Your task to perform on an android device: Turn on the flashlight Image 0: 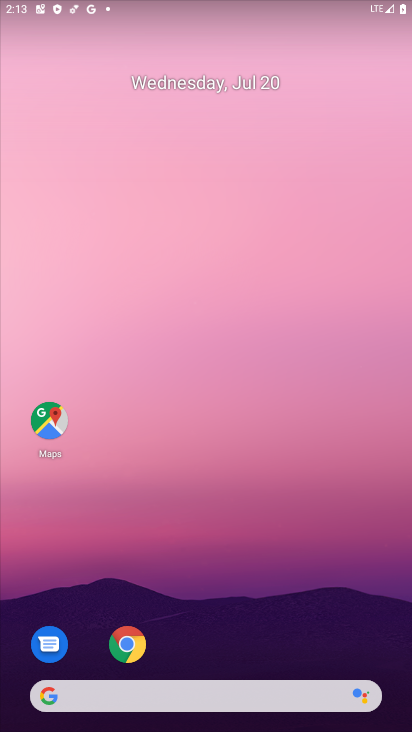
Step 0: drag from (216, 699) to (226, 194)
Your task to perform on an android device: Turn on the flashlight Image 1: 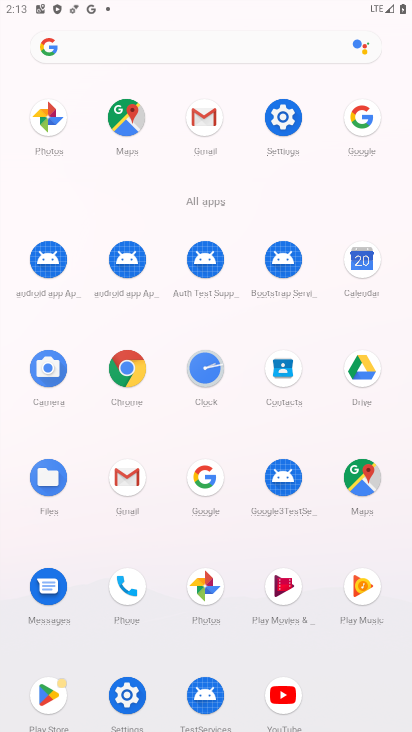
Step 1: click (280, 117)
Your task to perform on an android device: Turn on the flashlight Image 2: 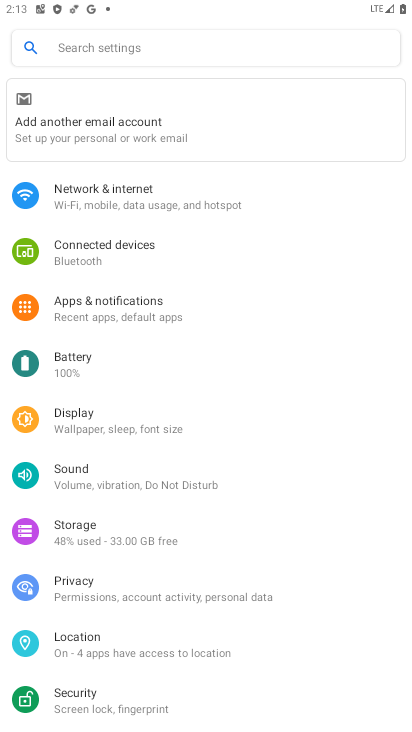
Step 2: click (98, 423)
Your task to perform on an android device: Turn on the flashlight Image 3: 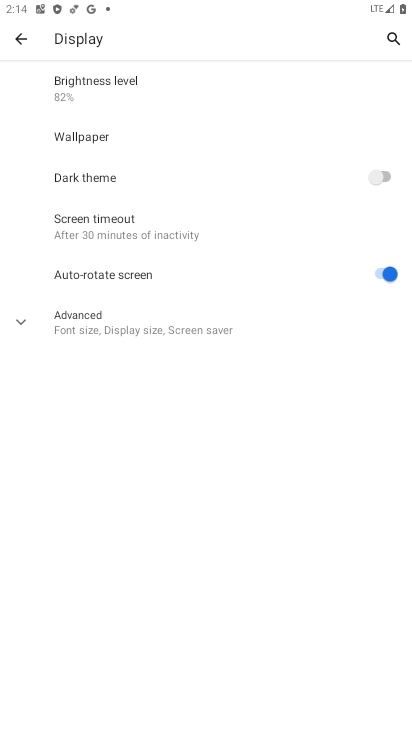
Step 3: click (391, 37)
Your task to perform on an android device: Turn on the flashlight Image 4: 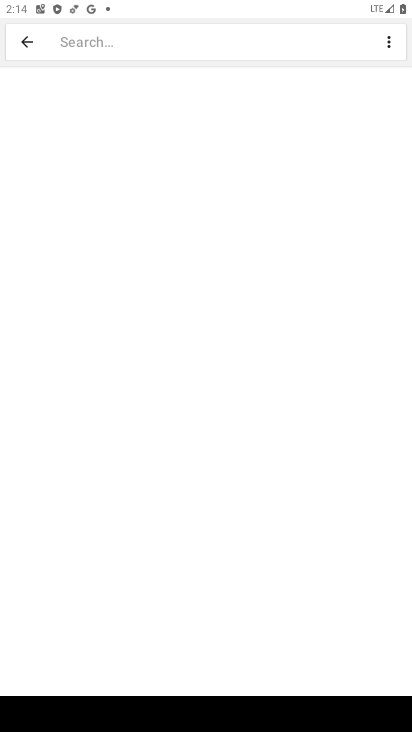
Step 4: type "flashlight"
Your task to perform on an android device: Turn on the flashlight Image 5: 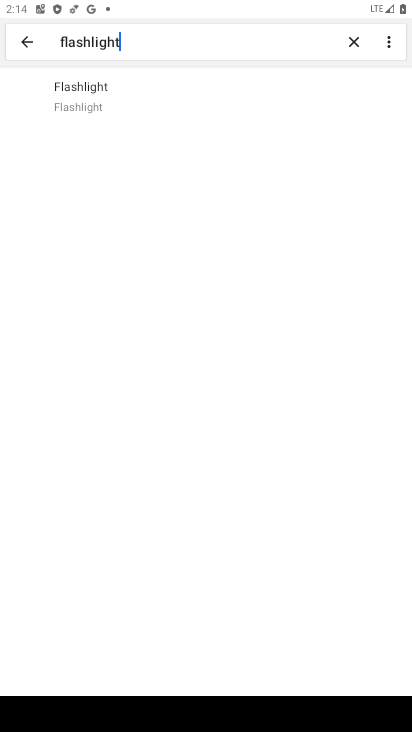
Step 5: task complete